Your task to perform on an android device: star an email in the gmail app Image 0: 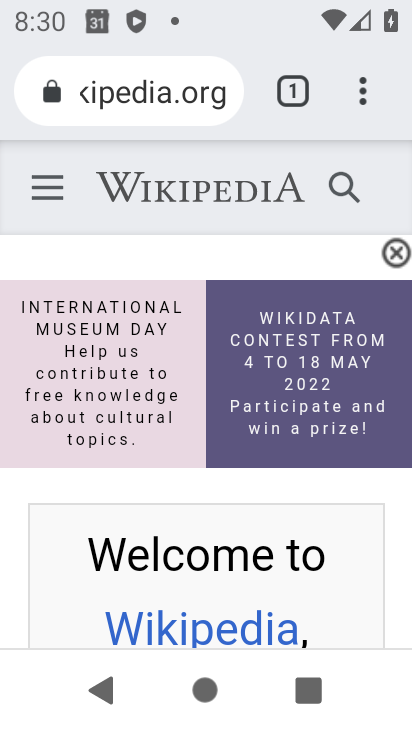
Step 0: press home button
Your task to perform on an android device: star an email in the gmail app Image 1: 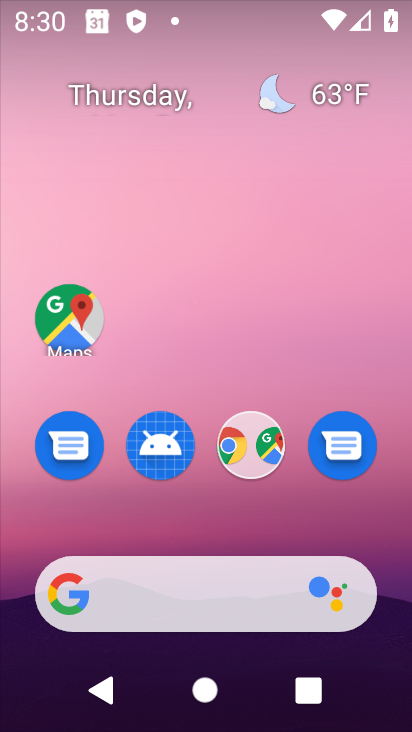
Step 1: drag from (210, 537) to (168, 50)
Your task to perform on an android device: star an email in the gmail app Image 2: 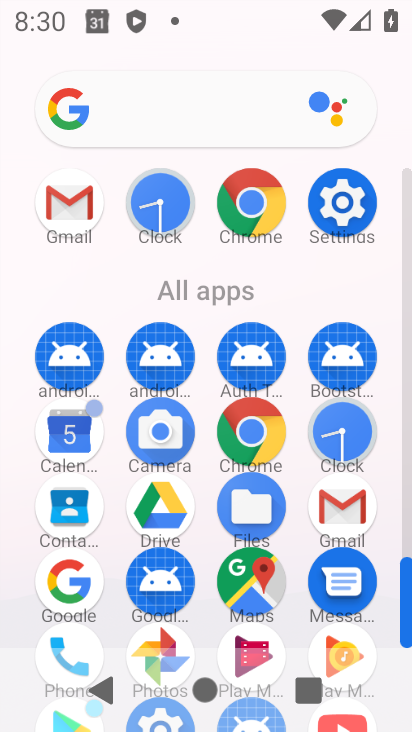
Step 2: click (352, 492)
Your task to perform on an android device: star an email in the gmail app Image 3: 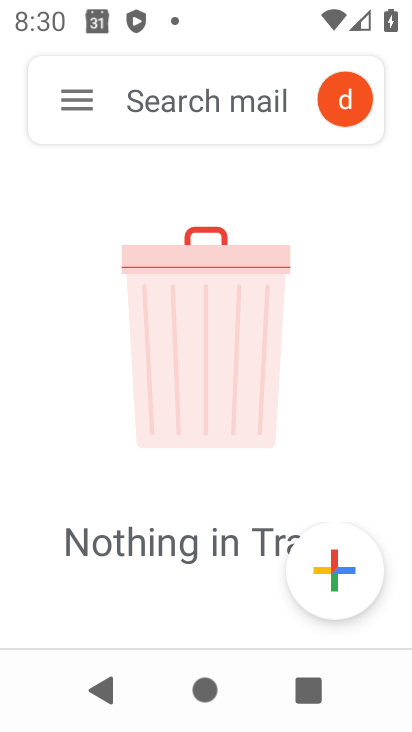
Step 3: click (47, 101)
Your task to perform on an android device: star an email in the gmail app Image 4: 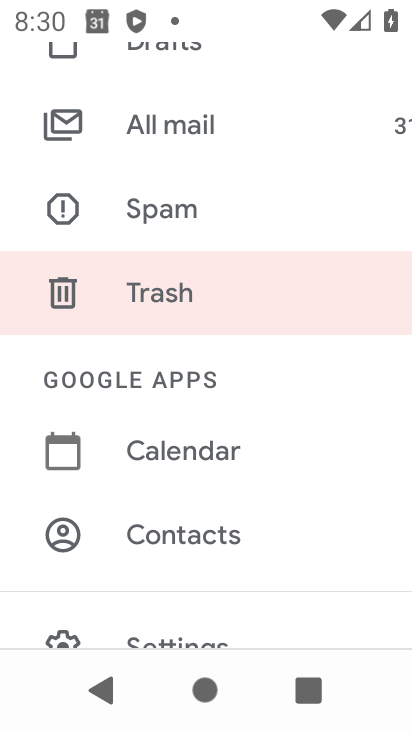
Step 4: click (173, 138)
Your task to perform on an android device: star an email in the gmail app Image 5: 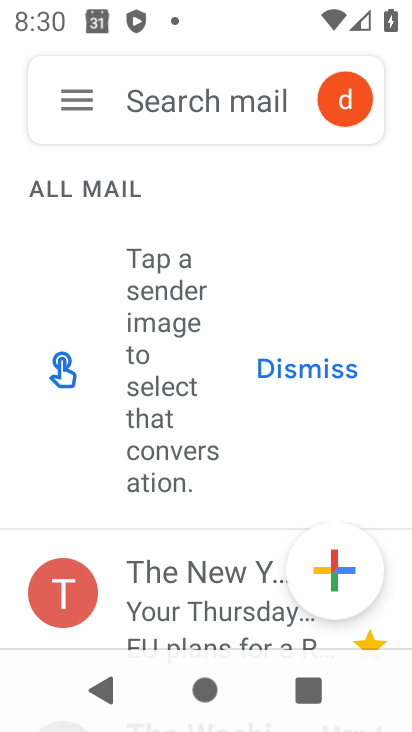
Step 5: drag from (267, 498) to (154, 10)
Your task to perform on an android device: star an email in the gmail app Image 6: 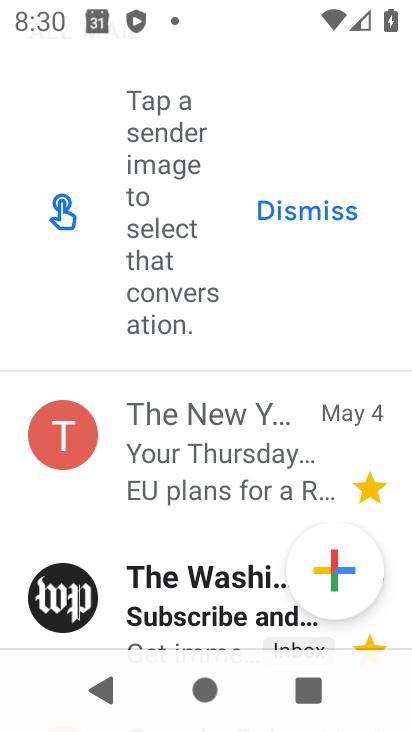
Step 6: drag from (175, 496) to (125, 57)
Your task to perform on an android device: star an email in the gmail app Image 7: 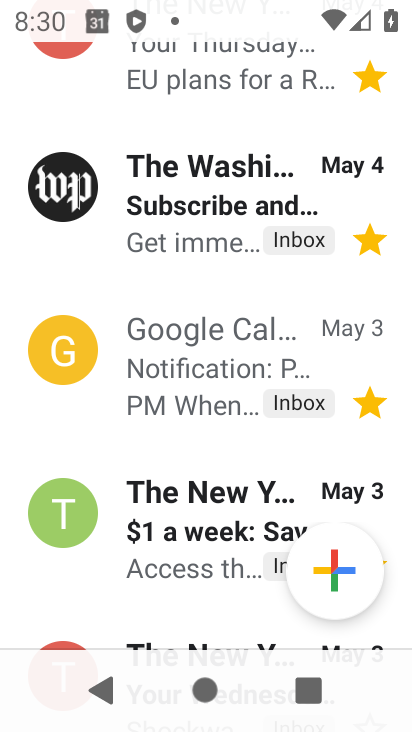
Step 7: drag from (185, 505) to (141, 243)
Your task to perform on an android device: star an email in the gmail app Image 8: 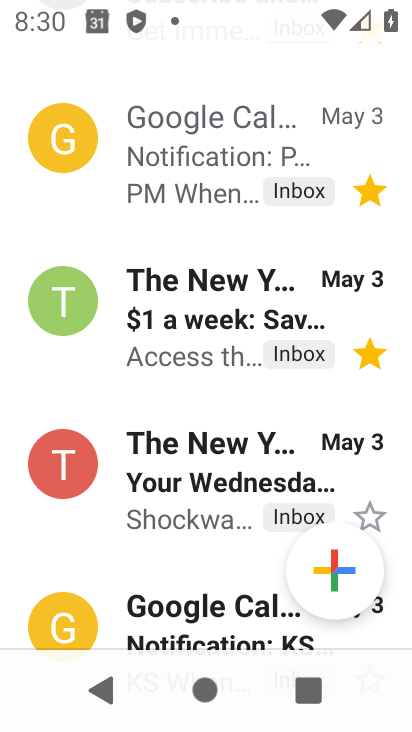
Step 8: click (367, 515)
Your task to perform on an android device: star an email in the gmail app Image 9: 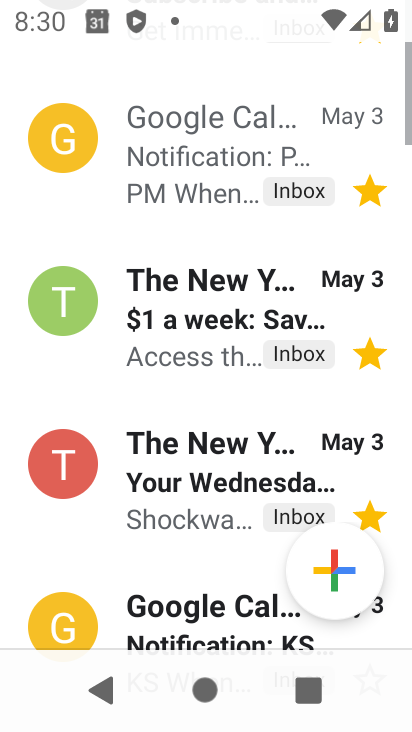
Step 9: task complete